Your task to perform on an android device: Open Reddit.com Image 0: 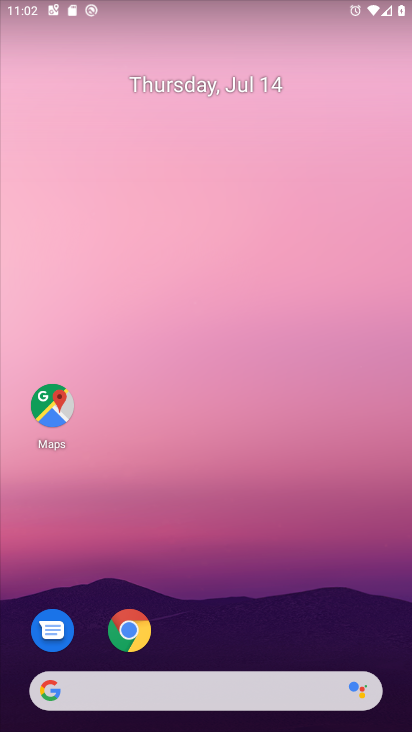
Step 0: drag from (171, 512) to (162, 124)
Your task to perform on an android device: Open Reddit.com Image 1: 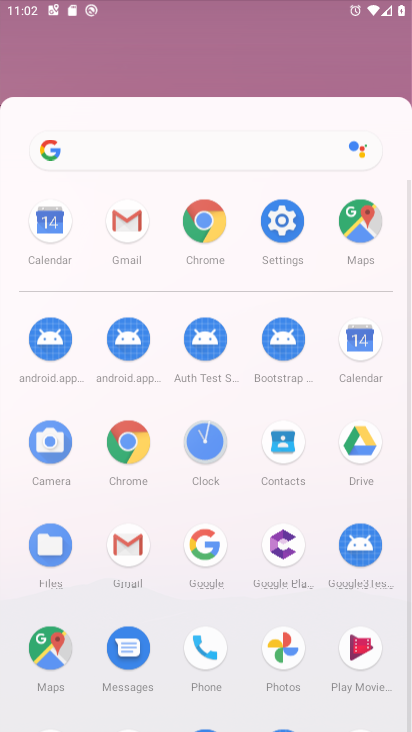
Step 1: drag from (234, 232) to (251, 149)
Your task to perform on an android device: Open Reddit.com Image 2: 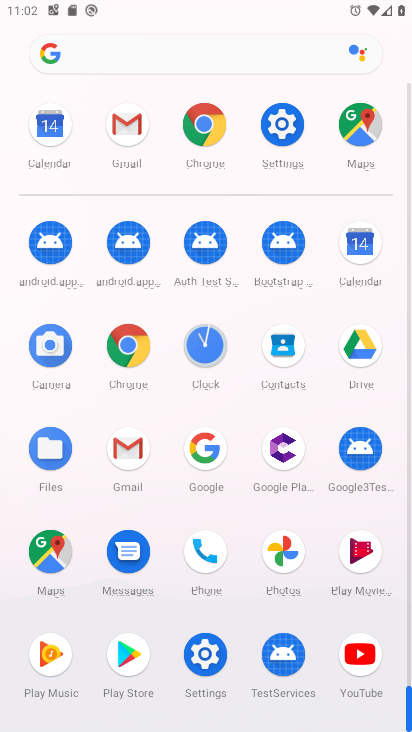
Step 2: click (158, 54)
Your task to perform on an android device: Open Reddit.com Image 3: 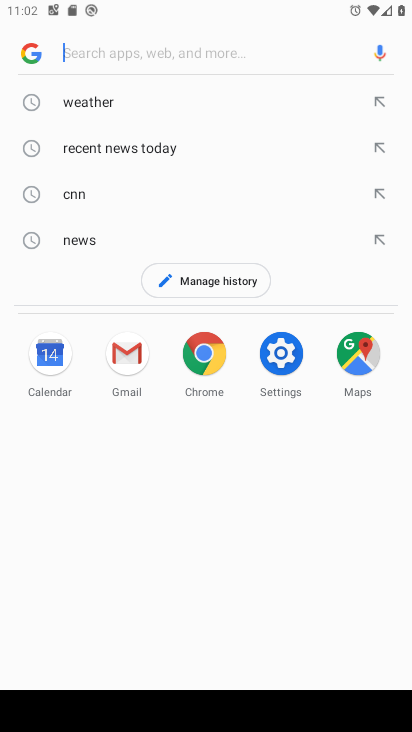
Step 3: type "Reddit"
Your task to perform on an android device: Open Reddit.com Image 4: 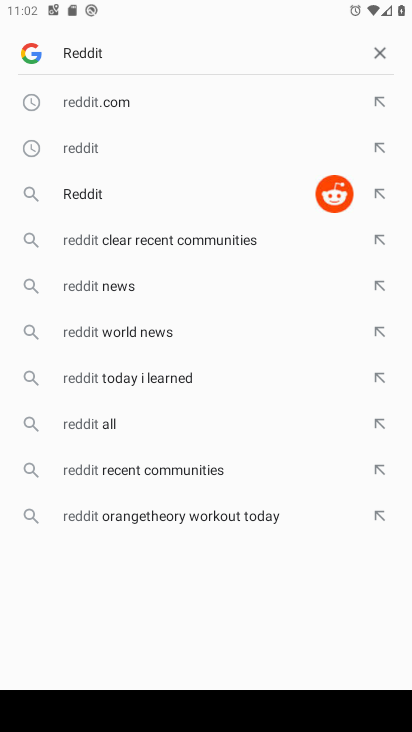
Step 4: click (121, 185)
Your task to perform on an android device: Open Reddit.com Image 5: 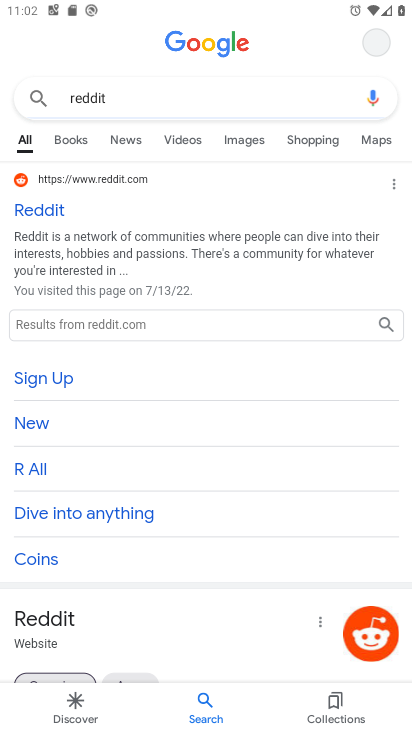
Step 5: drag from (185, 395) to (201, 231)
Your task to perform on an android device: Open Reddit.com Image 6: 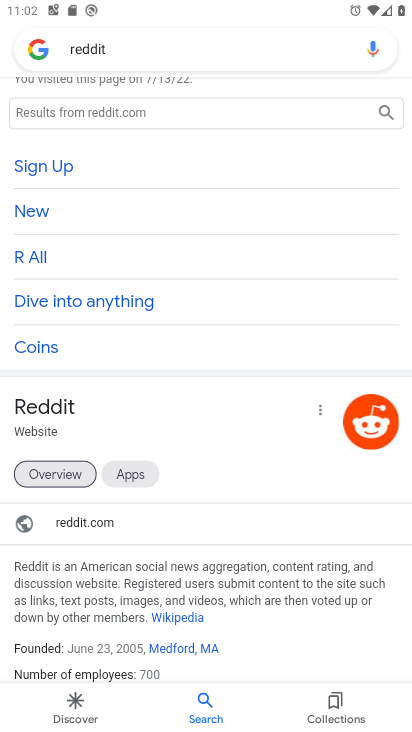
Step 6: drag from (108, 180) to (231, 637)
Your task to perform on an android device: Open Reddit.com Image 7: 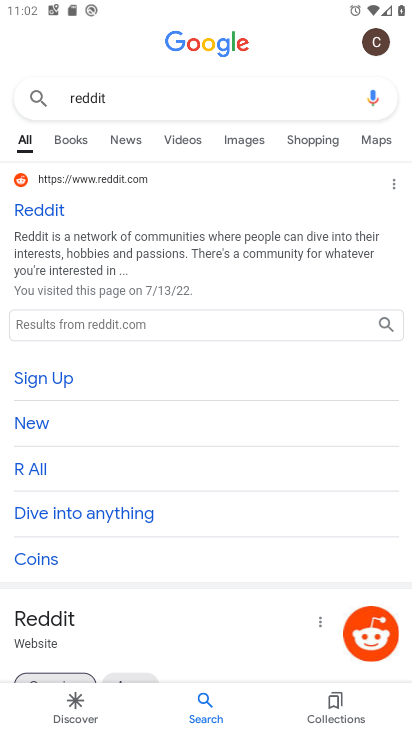
Step 7: click (43, 215)
Your task to perform on an android device: Open Reddit.com Image 8: 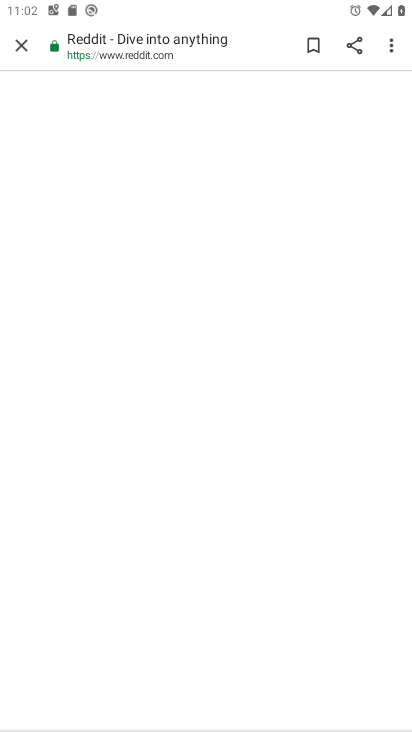
Step 8: task complete